Your task to perform on an android device: turn on location history Image 0: 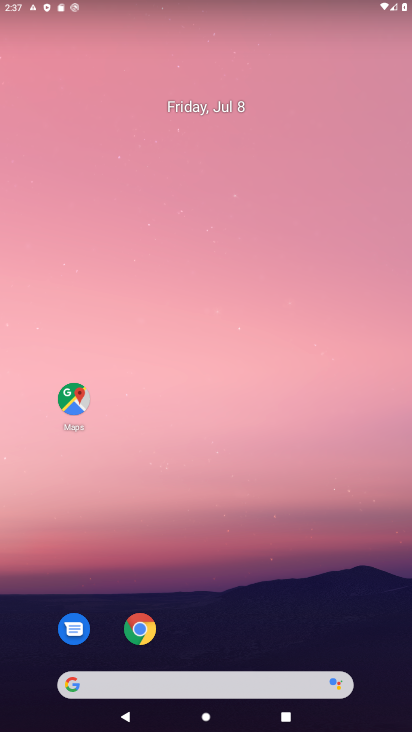
Step 0: drag from (187, 663) to (268, 287)
Your task to perform on an android device: turn on location history Image 1: 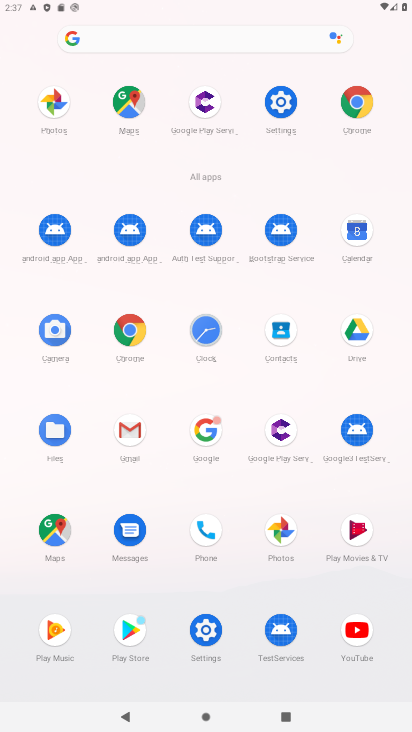
Step 1: click (191, 620)
Your task to perform on an android device: turn on location history Image 2: 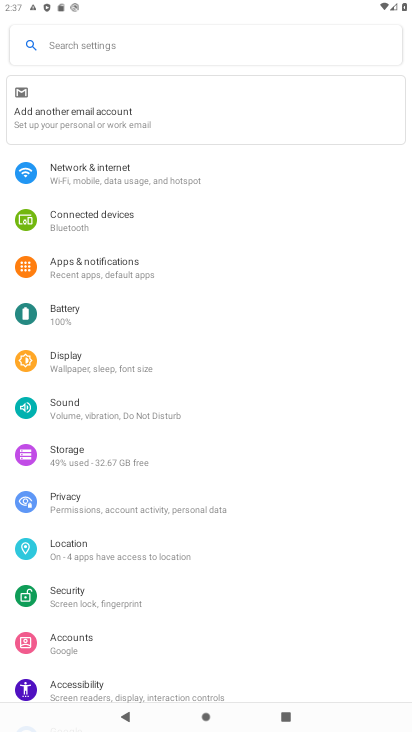
Step 2: click (97, 554)
Your task to perform on an android device: turn on location history Image 3: 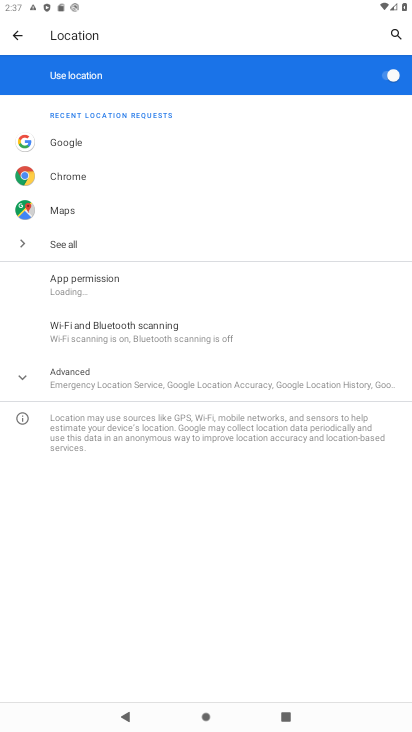
Step 3: click (162, 385)
Your task to perform on an android device: turn on location history Image 4: 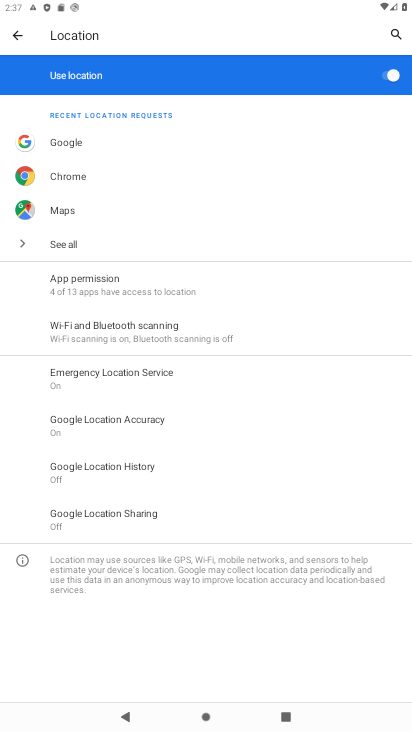
Step 4: click (137, 472)
Your task to perform on an android device: turn on location history Image 5: 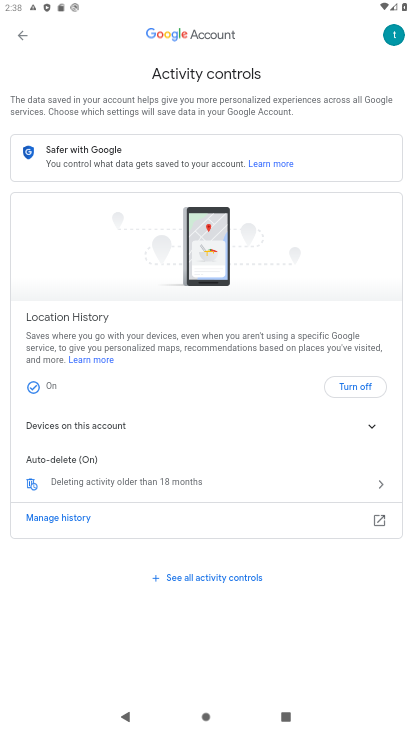
Step 5: task complete